Your task to perform on an android device: star an email in the gmail app Image 0: 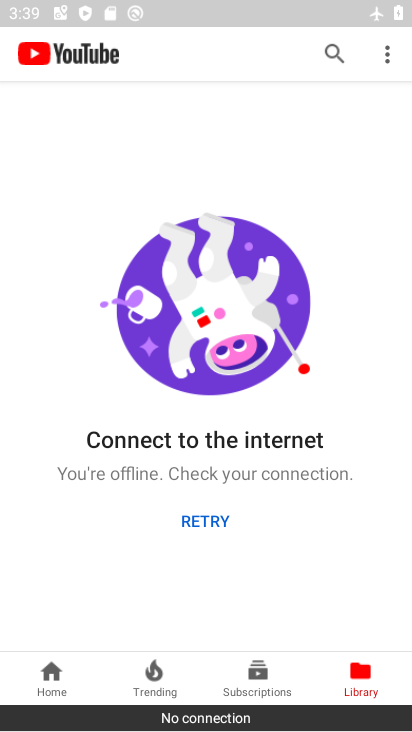
Step 0: press back button
Your task to perform on an android device: star an email in the gmail app Image 1: 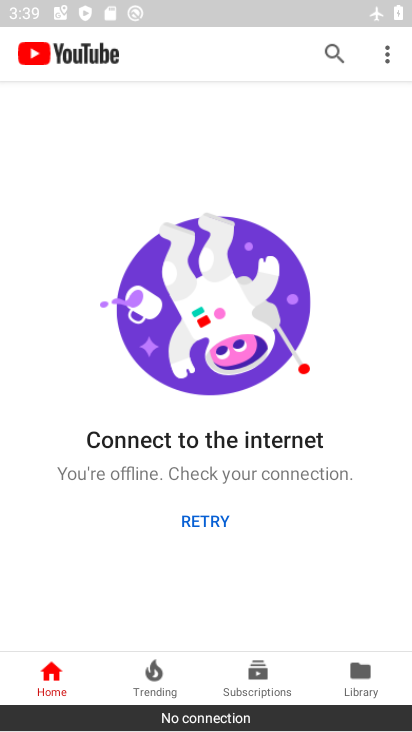
Step 1: press back button
Your task to perform on an android device: star an email in the gmail app Image 2: 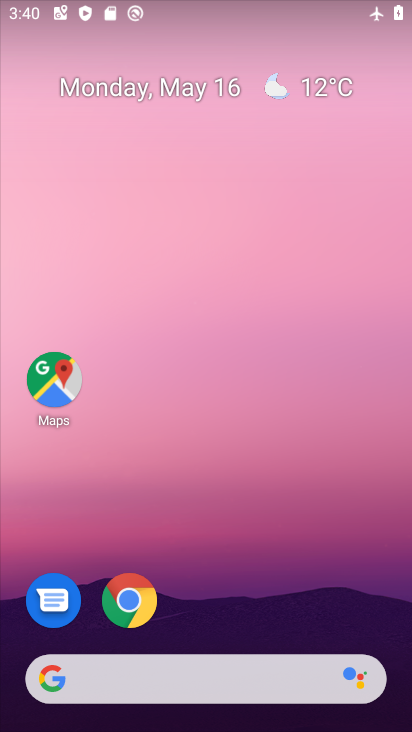
Step 2: drag from (236, 665) to (342, 18)
Your task to perform on an android device: star an email in the gmail app Image 3: 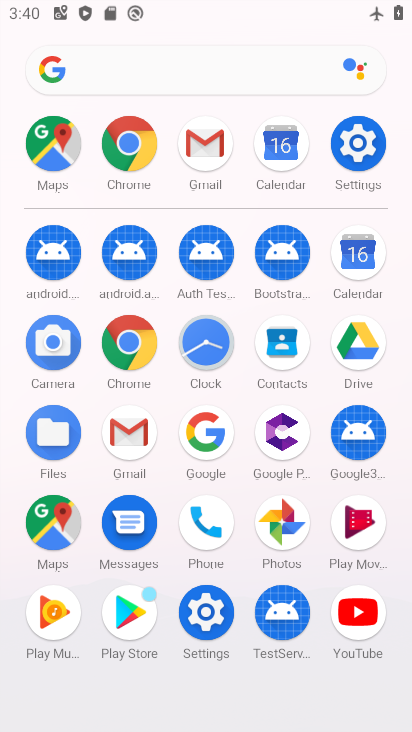
Step 3: click (133, 444)
Your task to perform on an android device: star an email in the gmail app Image 4: 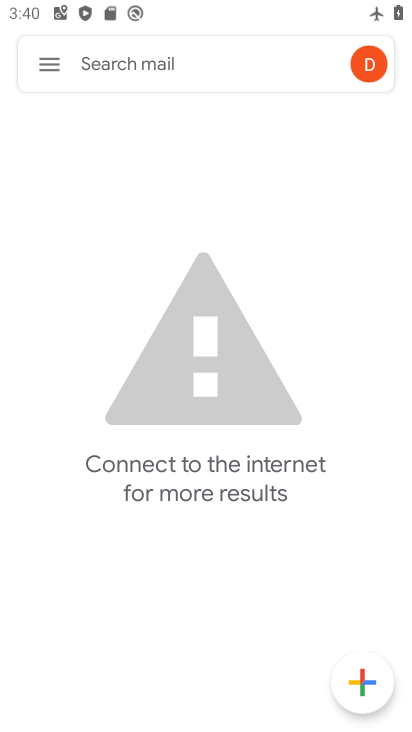
Step 4: task complete